Your task to perform on an android device: Empty the shopping cart on walmart.com. Search for "razer thresher" on walmart.com, select the first entry, and add it to the cart. Image 0: 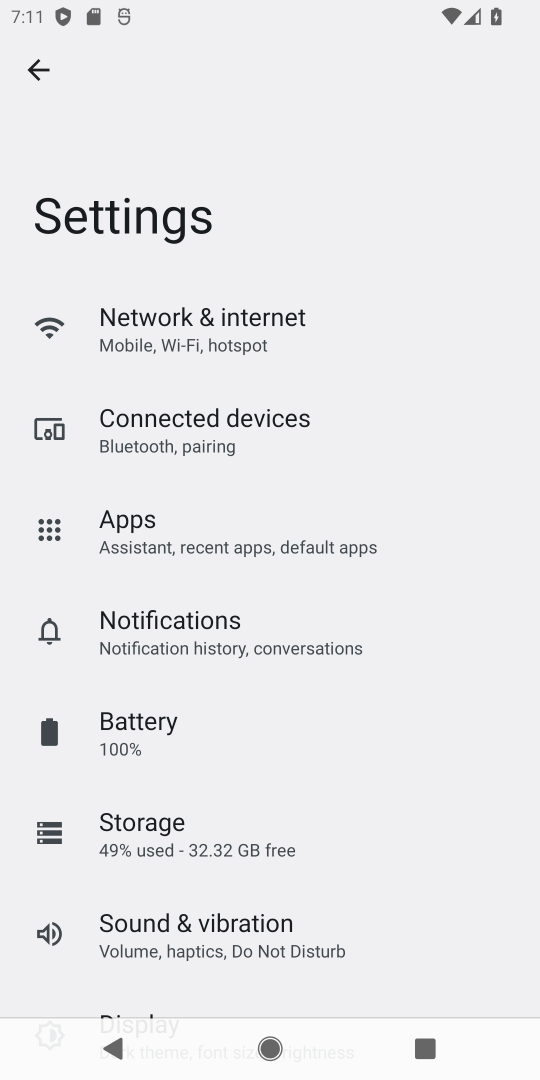
Step 0: press home button
Your task to perform on an android device: Empty the shopping cart on walmart.com. Search for "razer thresher" on walmart.com, select the first entry, and add it to the cart. Image 1: 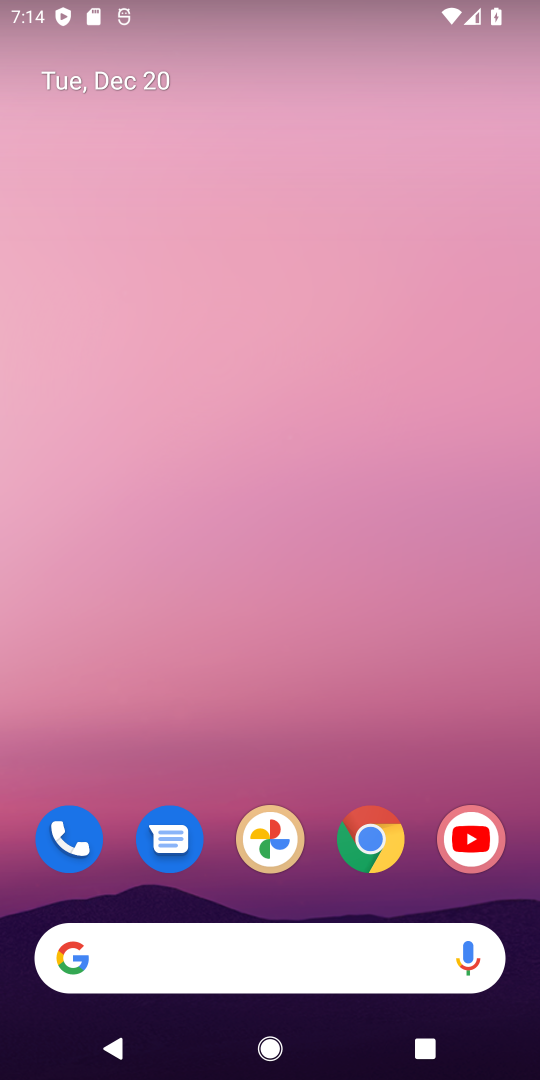
Step 1: click (272, 940)
Your task to perform on an android device: Empty the shopping cart on walmart.com. Search for "razer thresher" on walmart.com, select the first entry, and add it to the cart. Image 2: 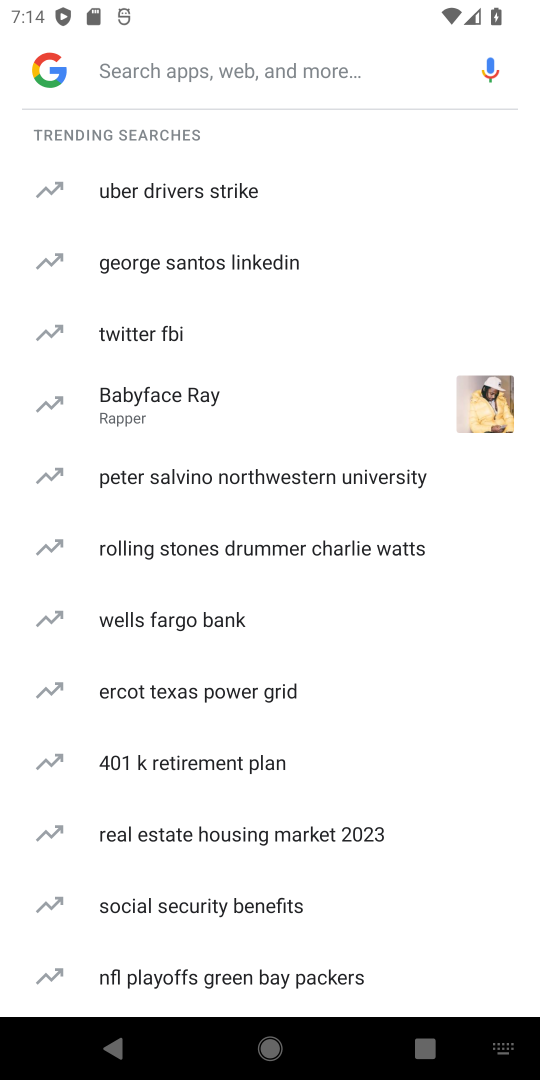
Step 2: type "walmart.com"
Your task to perform on an android device: Empty the shopping cart on walmart.com. Search for "razer thresher" on walmart.com, select the first entry, and add it to the cart. Image 3: 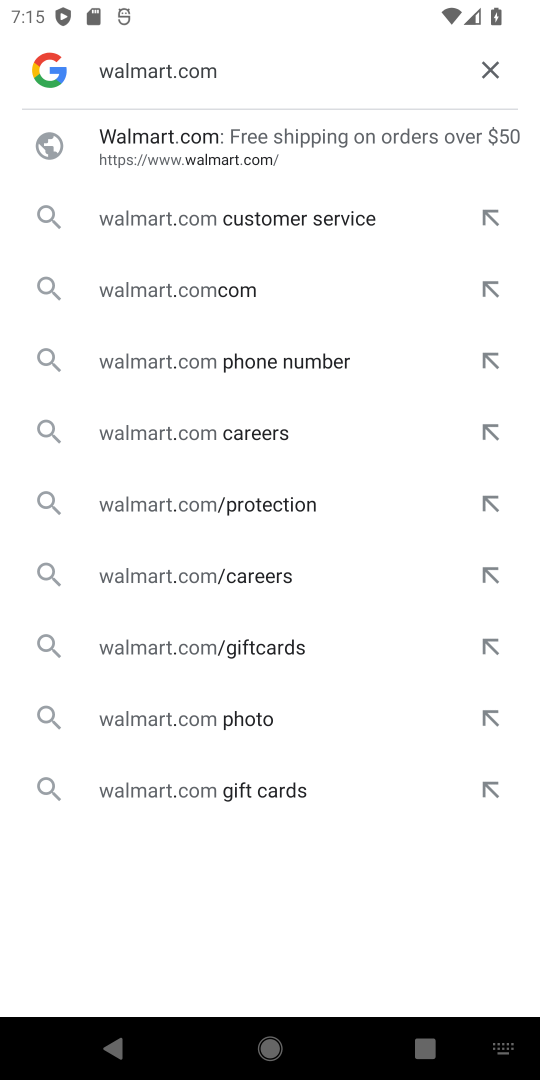
Step 3: click (228, 165)
Your task to perform on an android device: Empty the shopping cart on walmart.com. Search for "razer thresher" on walmart.com, select the first entry, and add it to the cart. Image 4: 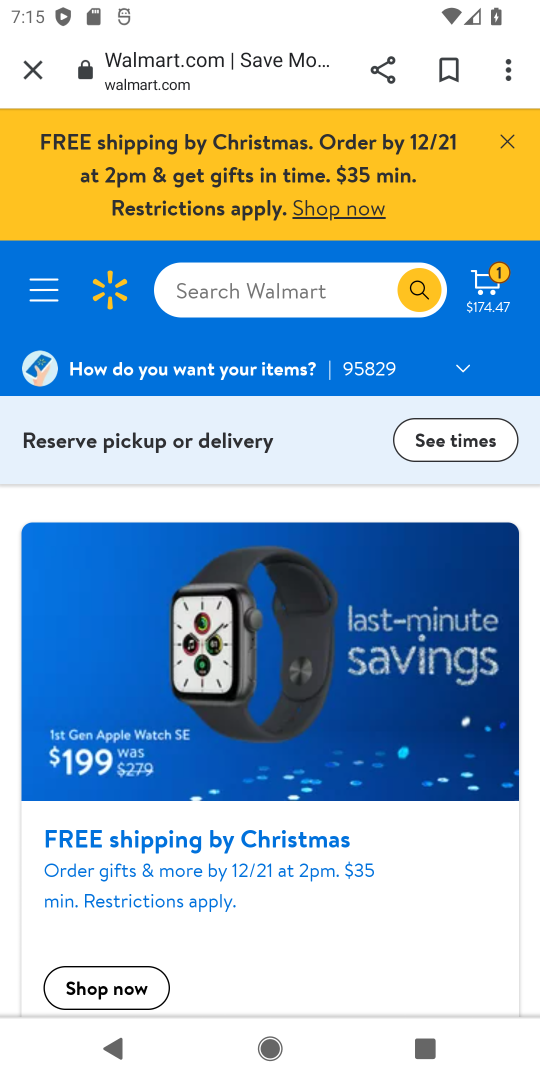
Step 4: click (479, 287)
Your task to perform on an android device: Empty the shopping cart on walmart.com. Search for "razer thresher" on walmart.com, select the first entry, and add it to the cart. Image 5: 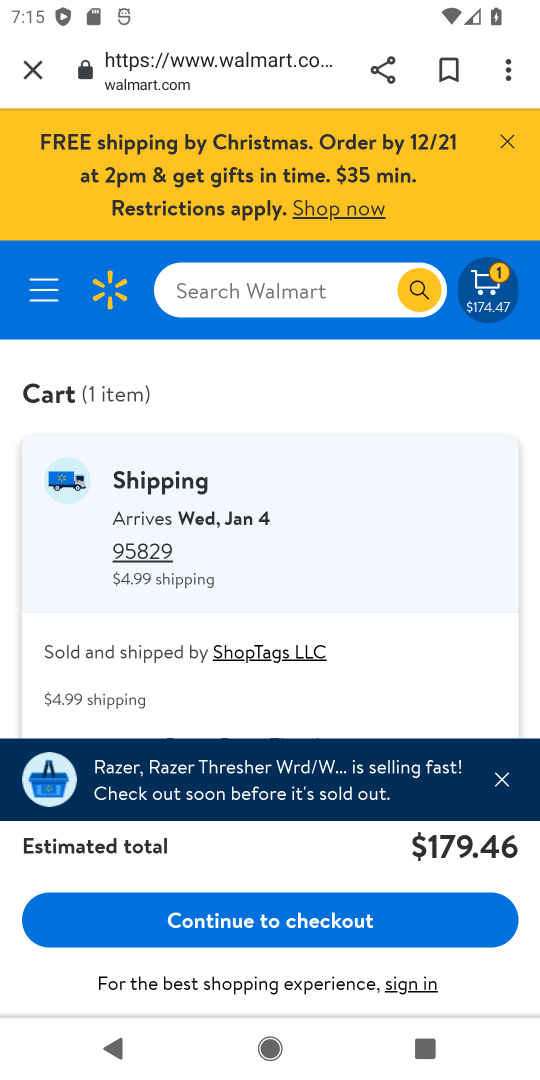
Step 5: click (525, 306)
Your task to perform on an android device: Empty the shopping cart on walmart.com. Search for "razer thresher" on walmart.com, select the first entry, and add it to the cart. Image 6: 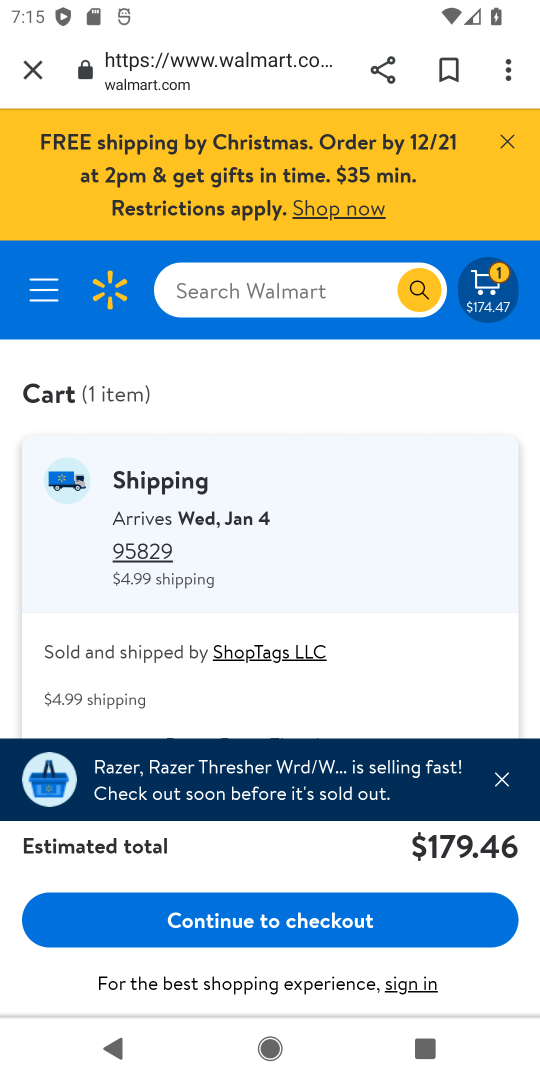
Step 6: click (496, 320)
Your task to perform on an android device: Empty the shopping cart on walmart.com. Search for "razer thresher" on walmart.com, select the first entry, and add it to the cart. Image 7: 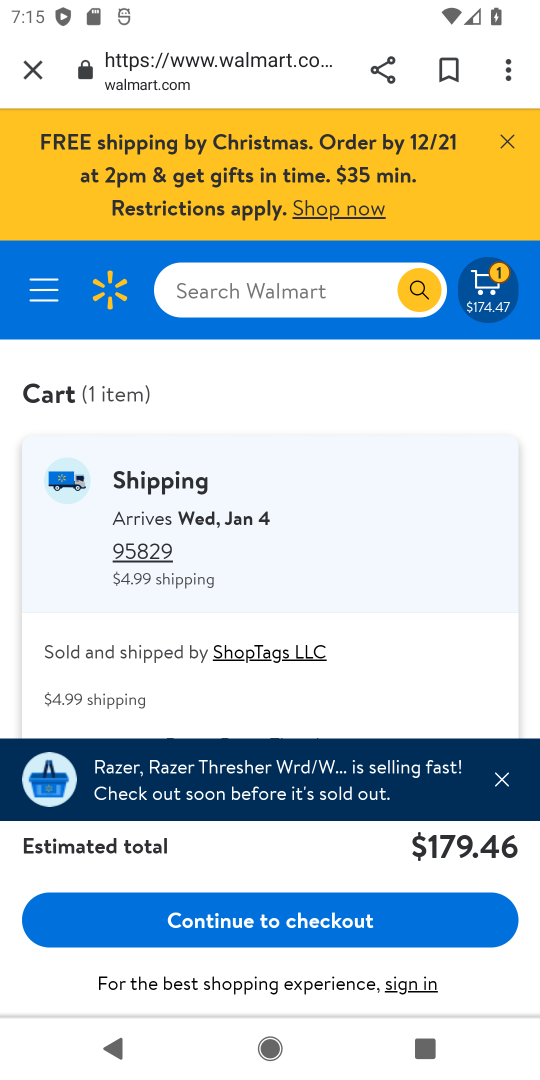
Step 7: click (488, 303)
Your task to perform on an android device: Empty the shopping cart on walmart.com. Search for "razer thresher" on walmart.com, select the first entry, and add it to the cart. Image 8: 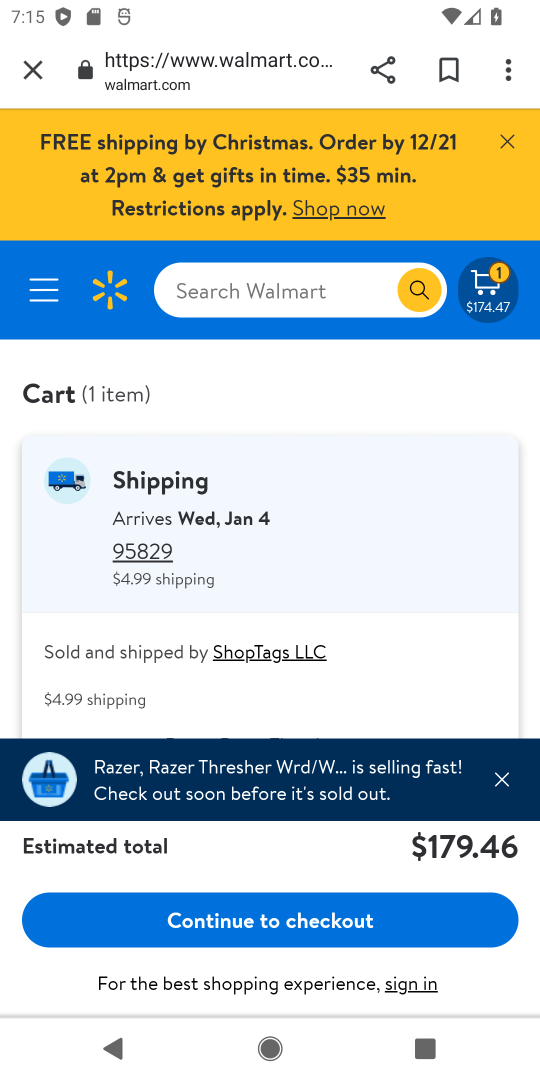
Step 8: click (492, 284)
Your task to perform on an android device: Empty the shopping cart on walmart.com. Search for "razer thresher" on walmart.com, select the first entry, and add it to the cart. Image 9: 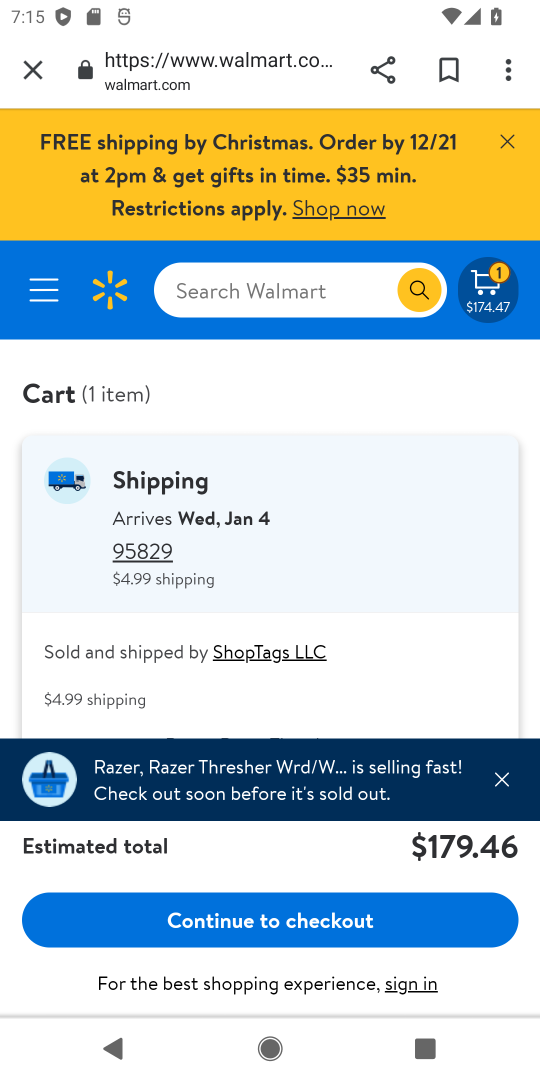
Step 9: drag from (186, 714) to (112, 421)
Your task to perform on an android device: Empty the shopping cart on walmart.com. Search for "razer thresher" on walmart.com, select the first entry, and add it to the cart. Image 10: 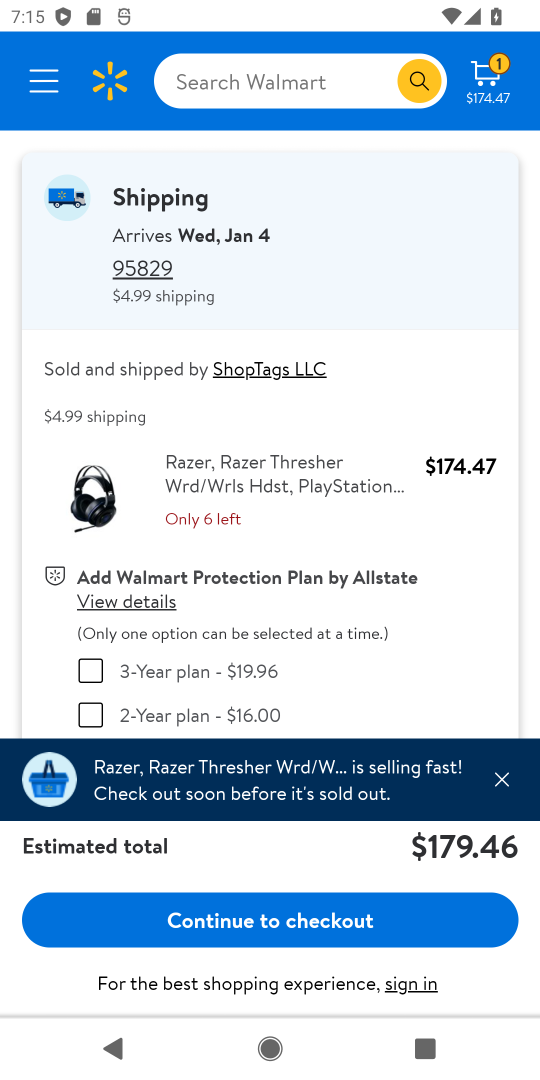
Step 10: drag from (186, 685) to (92, 359)
Your task to perform on an android device: Empty the shopping cart on walmart.com. Search for "razer thresher" on walmart.com, select the first entry, and add it to the cart. Image 11: 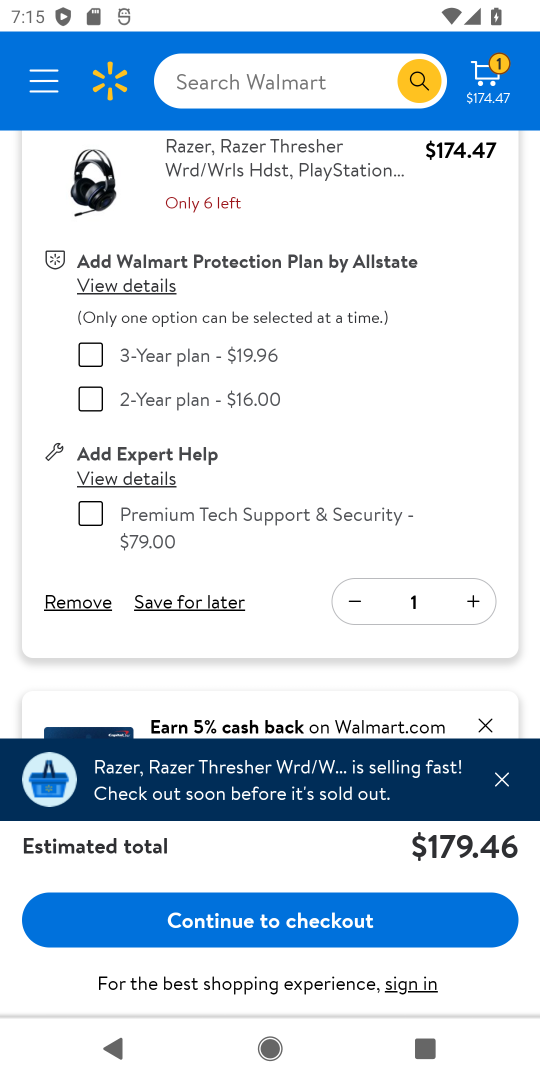
Step 11: click (86, 597)
Your task to perform on an android device: Empty the shopping cart on walmart.com. Search for "razer thresher" on walmart.com, select the first entry, and add it to the cart. Image 12: 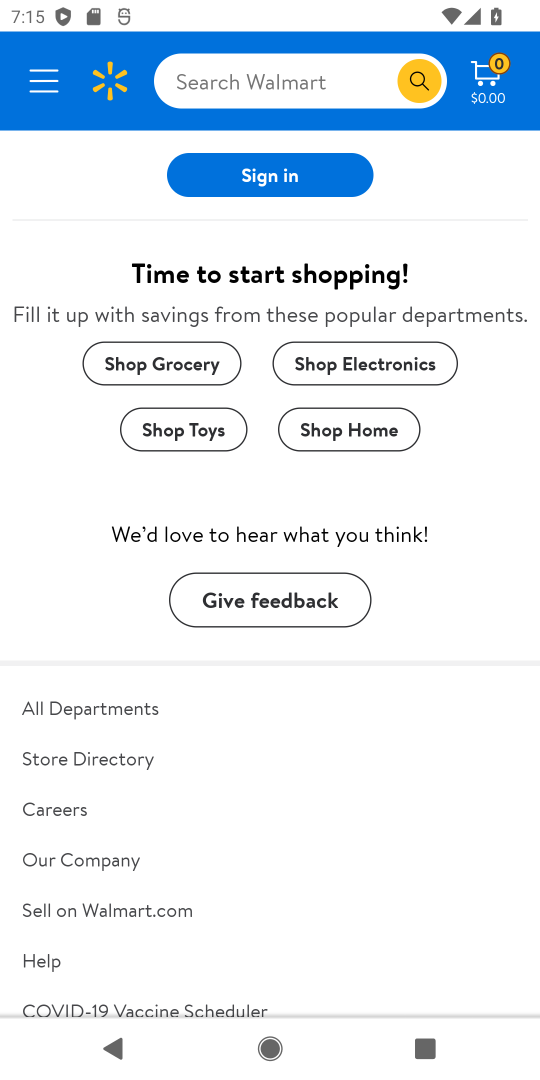
Step 12: click (266, 86)
Your task to perform on an android device: Empty the shopping cart on walmart.com. Search for "razer thresher" on walmart.com, select the first entry, and add it to the cart. Image 13: 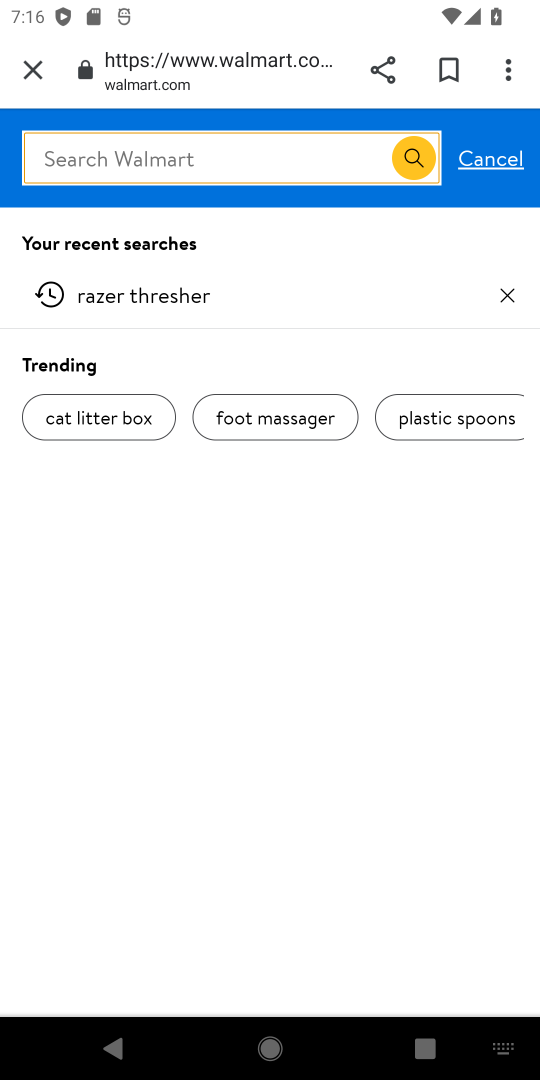
Step 13: type "razer thresher"
Your task to perform on an android device: Empty the shopping cart on walmart.com. Search for "razer thresher" on walmart.com, select the first entry, and add it to the cart. Image 14: 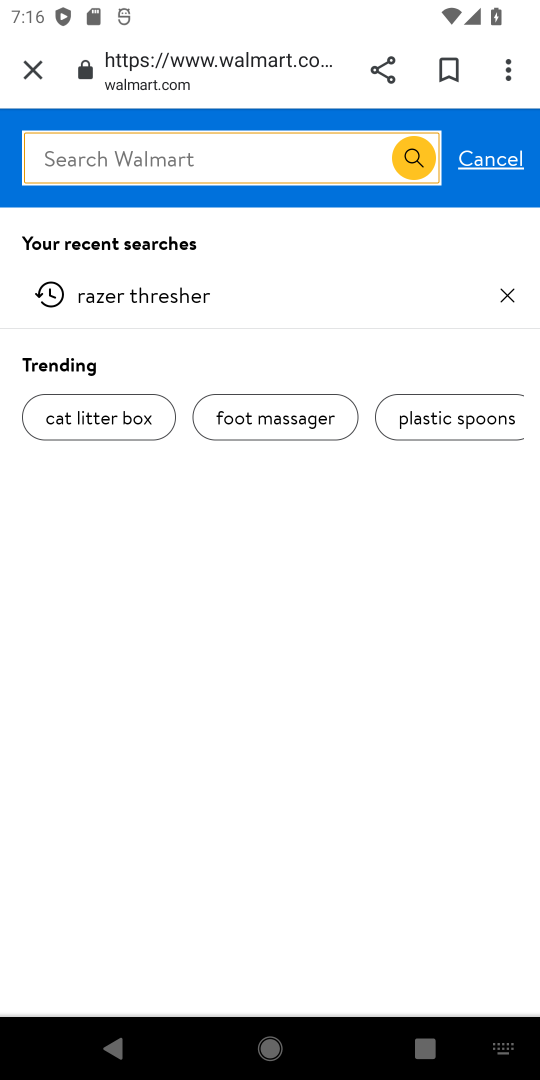
Step 14: type ""
Your task to perform on an android device: Empty the shopping cart on walmart.com. Search for "razer thresher" on walmart.com, select the first entry, and add it to the cart. Image 15: 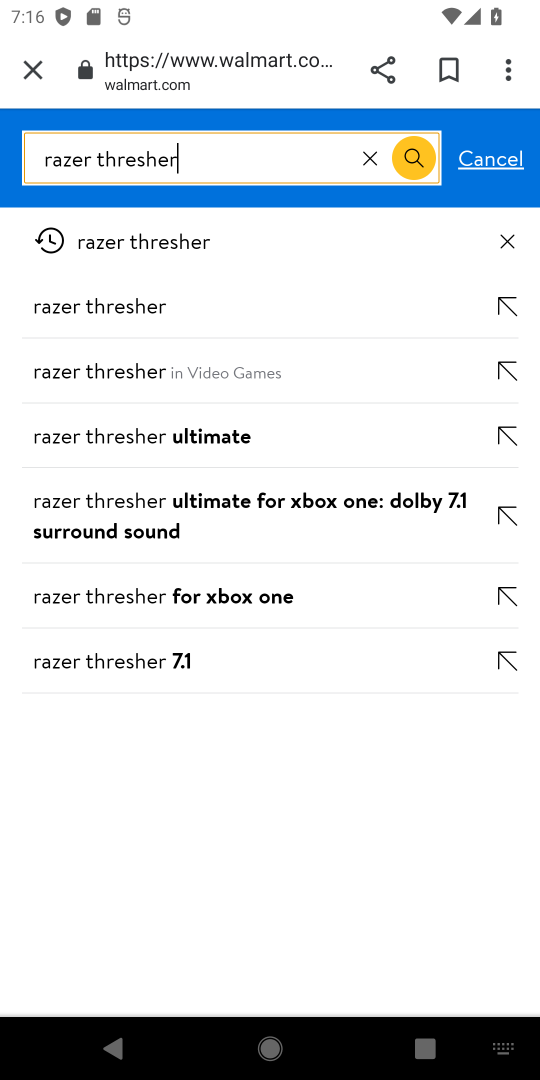
Step 15: click (171, 247)
Your task to perform on an android device: Empty the shopping cart on walmart.com. Search for "razer thresher" on walmart.com, select the first entry, and add it to the cart. Image 16: 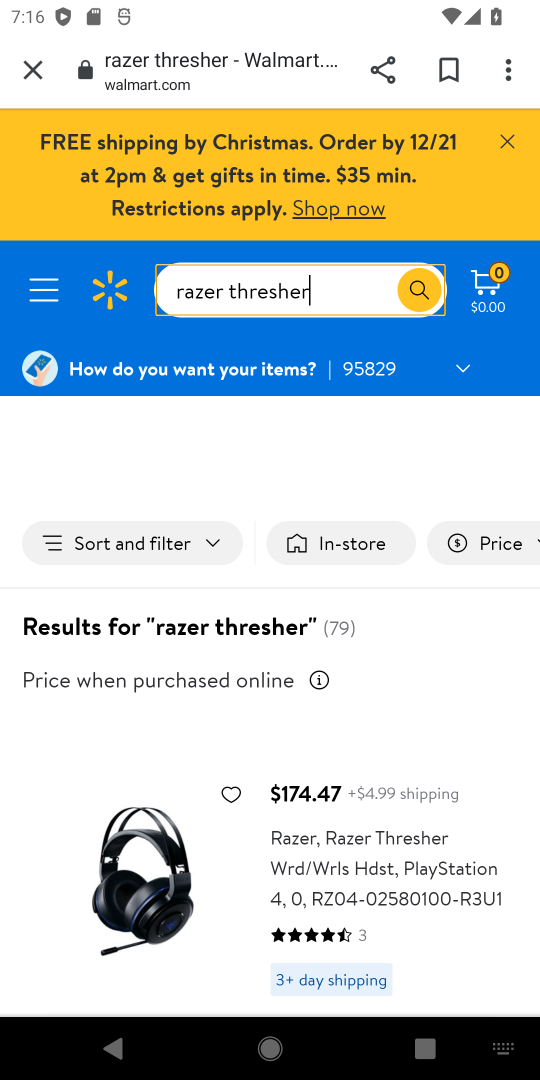
Step 16: drag from (366, 929) to (262, 467)
Your task to perform on an android device: Empty the shopping cart on walmart.com. Search for "razer thresher" on walmart.com, select the first entry, and add it to the cart. Image 17: 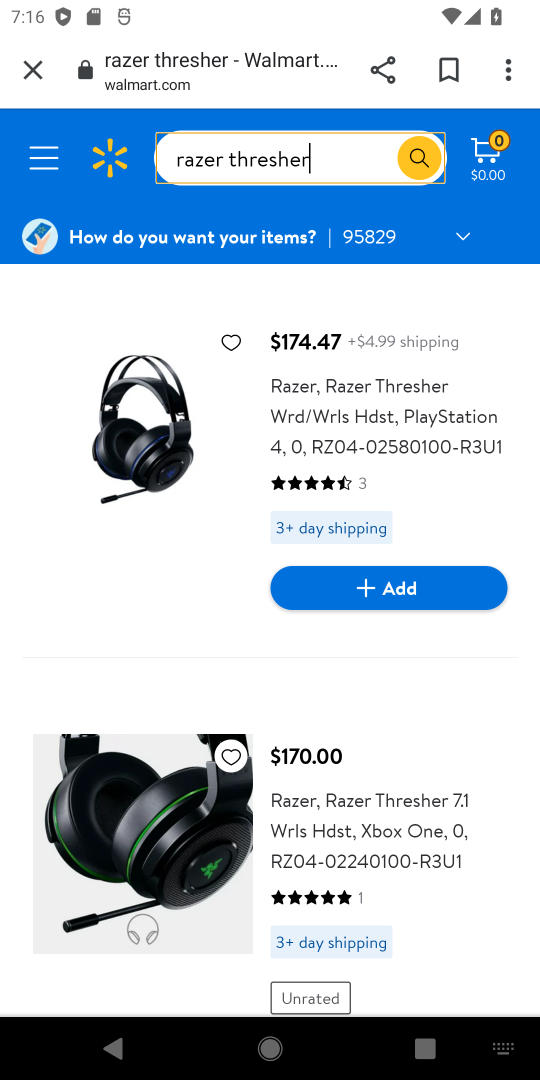
Step 17: click (359, 610)
Your task to perform on an android device: Empty the shopping cart on walmart.com. Search for "razer thresher" on walmart.com, select the first entry, and add it to the cart. Image 18: 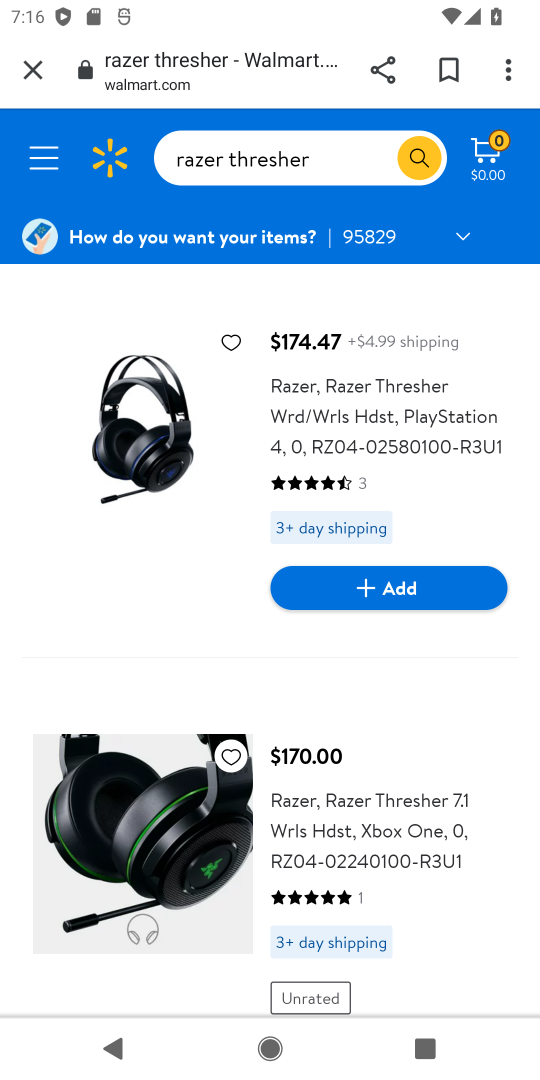
Step 18: click (384, 590)
Your task to perform on an android device: Empty the shopping cart on walmart.com. Search for "razer thresher" on walmart.com, select the first entry, and add it to the cart. Image 19: 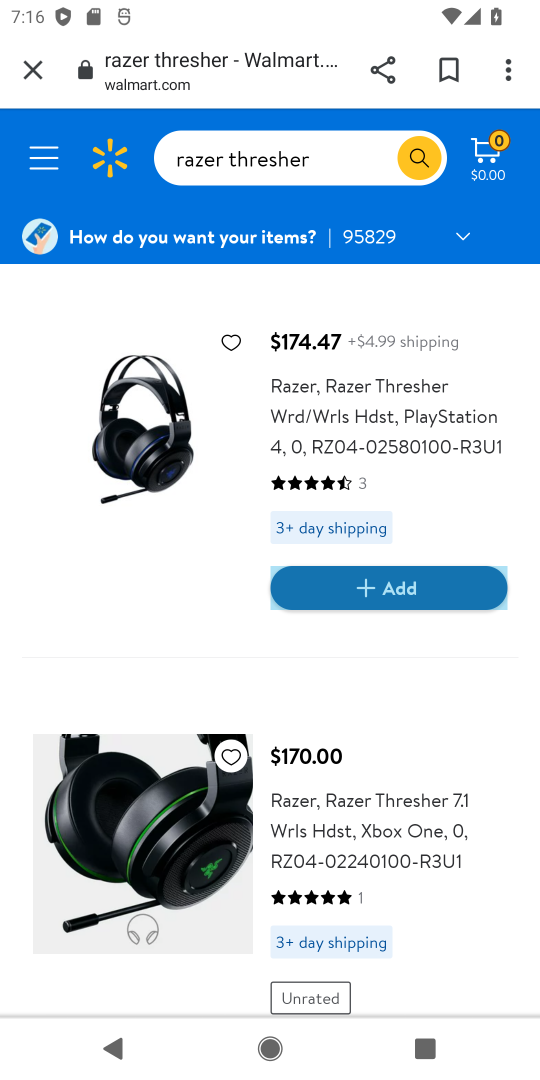
Step 19: click (419, 594)
Your task to perform on an android device: Empty the shopping cart on walmart.com. Search for "razer thresher" on walmart.com, select the first entry, and add it to the cart. Image 20: 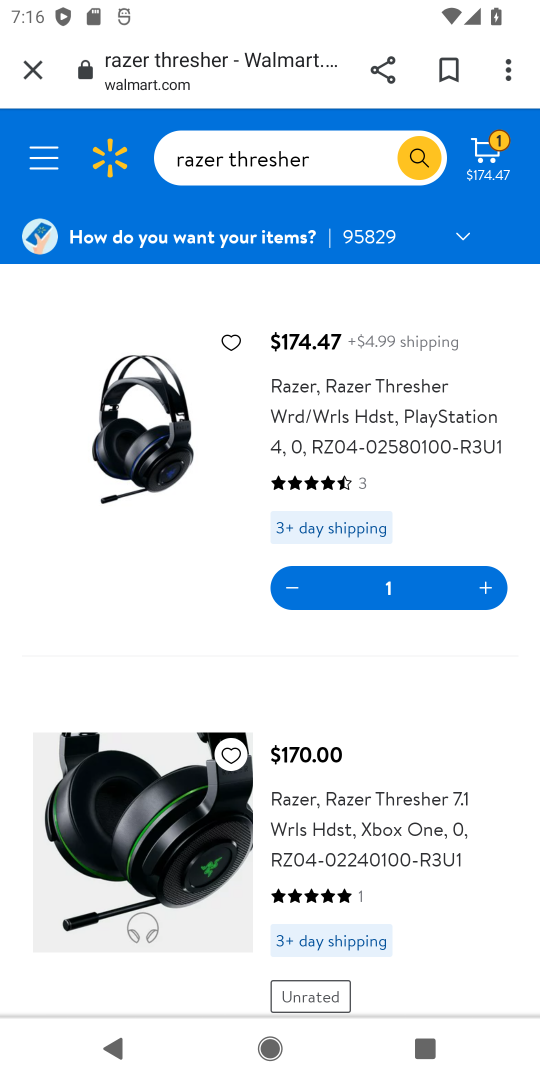
Step 20: task complete